Your task to perform on an android device: Open Google Maps Image 0: 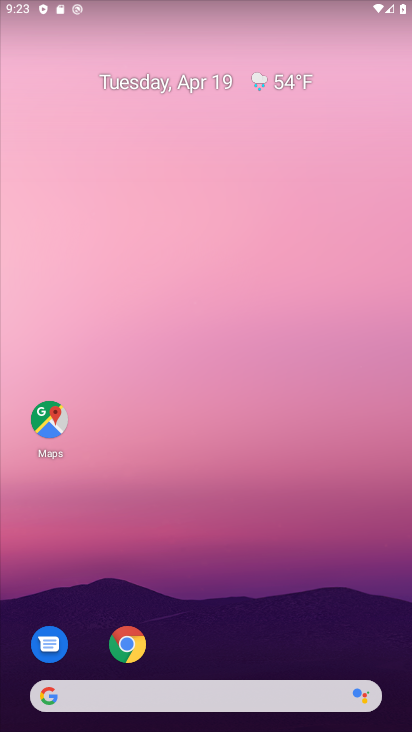
Step 0: drag from (277, 593) to (251, 9)
Your task to perform on an android device: Open Google Maps Image 1: 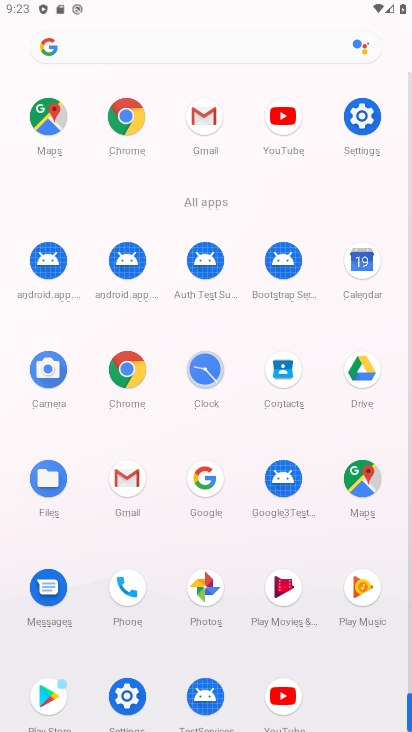
Step 1: click (28, 123)
Your task to perform on an android device: Open Google Maps Image 2: 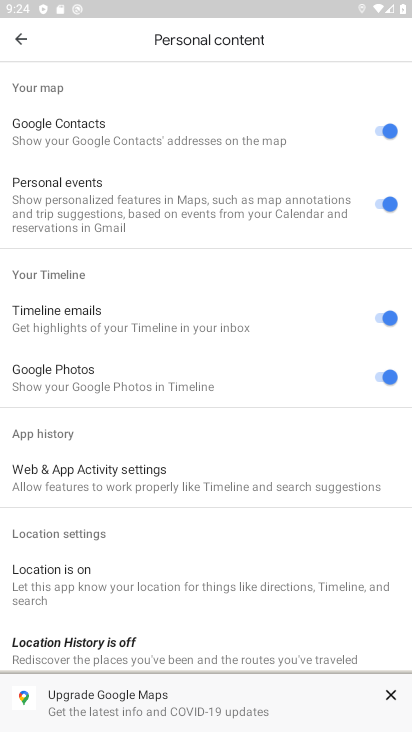
Step 2: task complete